Your task to perform on an android device: turn off javascript in the chrome app Image 0: 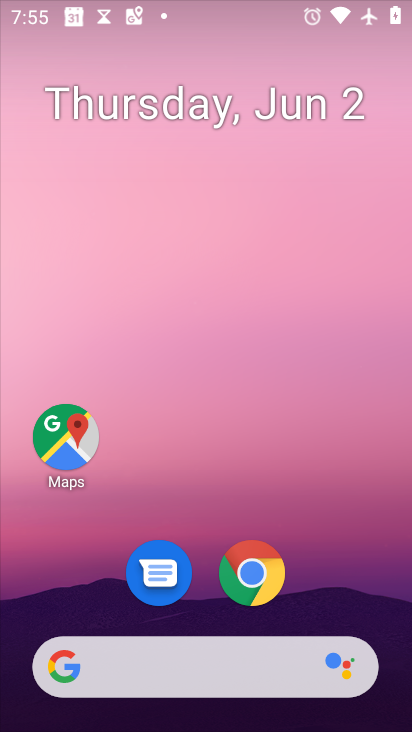
Step 0: press home button
Your task to perform on an android device: turn off javascript in the chrome app Image 1: 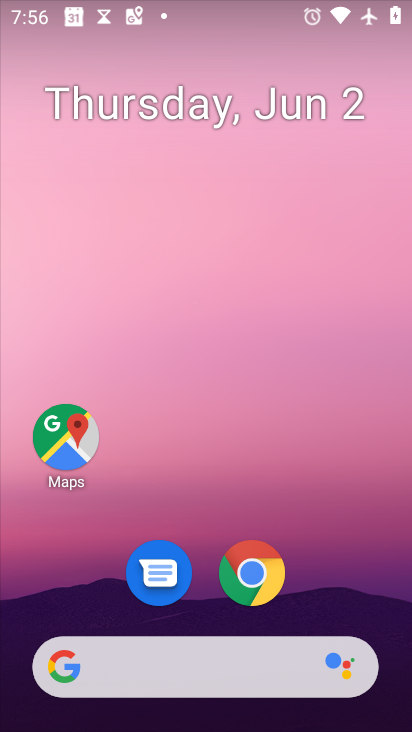
Step 1: click (256, 580)
Your task to perform on an android device: turn off javascript in the chrome app Image 2: 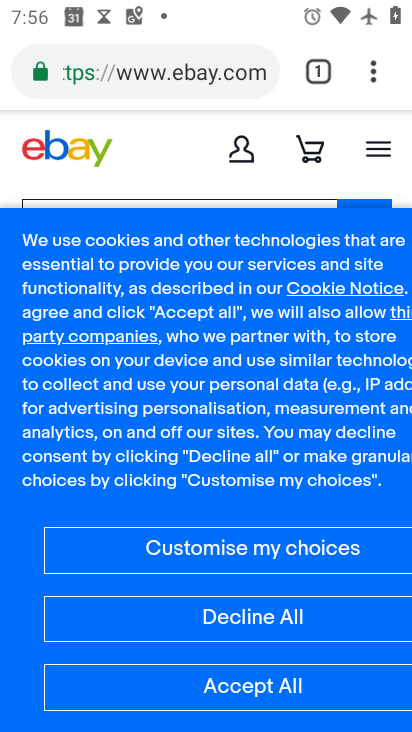
Step 2: drag from (373, 77) to (178, 582)
Your task to perform on an android device: turn off javascript in the chrome app Image 3: 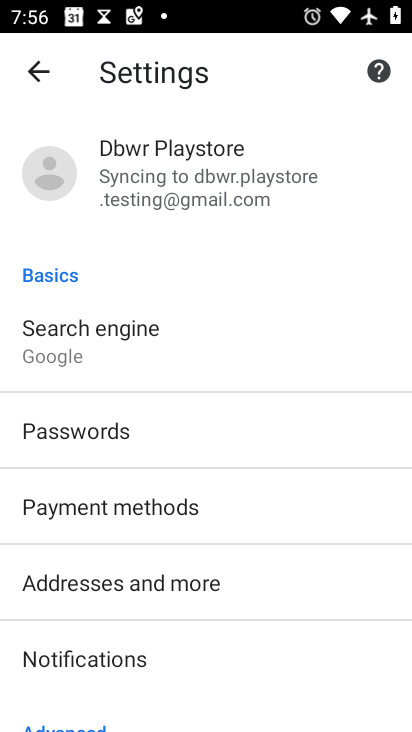
Step 3: drag from (162, 655) to (306, 181)
Your task to perform on an android device: turn off javascript in the chrome app Image 4: 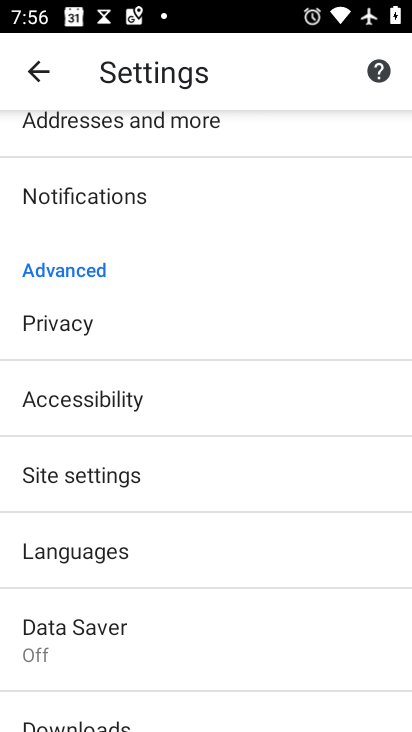
Step 4: click (118, 462)
Your task to perform on an android device: turn off javascript in the chrome app Image 5: 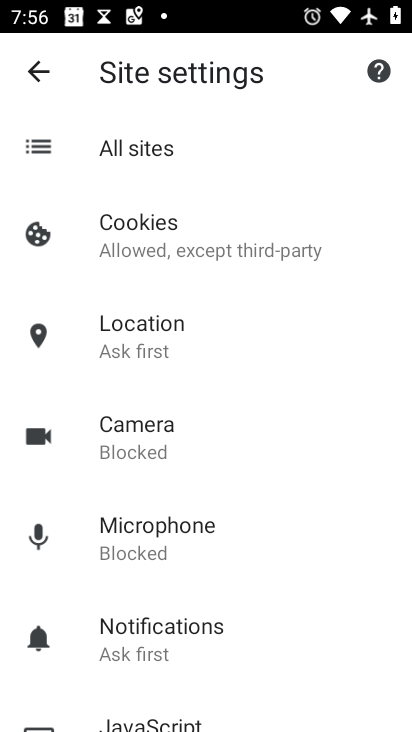
Step 5: drag from (266, 579) to (335, 171)
Your task to perform on an android device: turn off javascript in the chrome app Image 6: 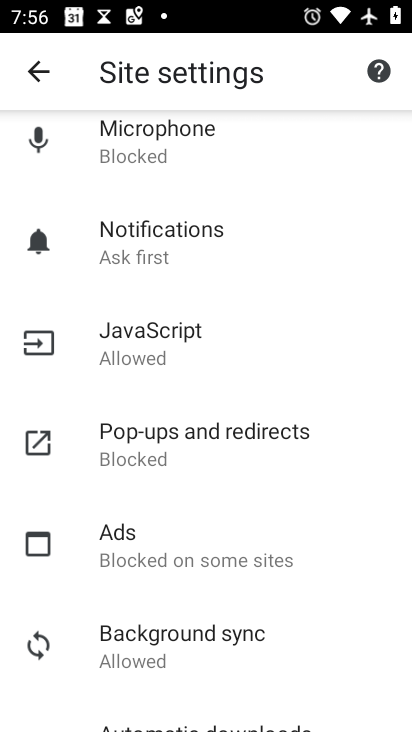
Step 6: click (142, 354)
Your task to perform on an android device: turn off javascript in the chrome app Image 7: 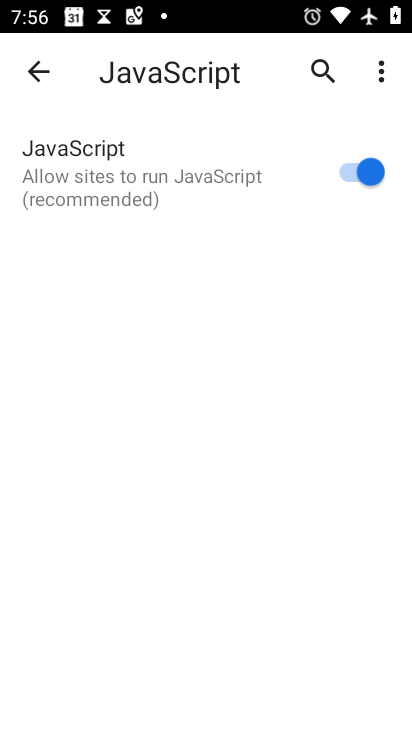
Step 7: click (339, 171)
Your task to perform on an android device: turn off javascript in the chrome app Image 8: 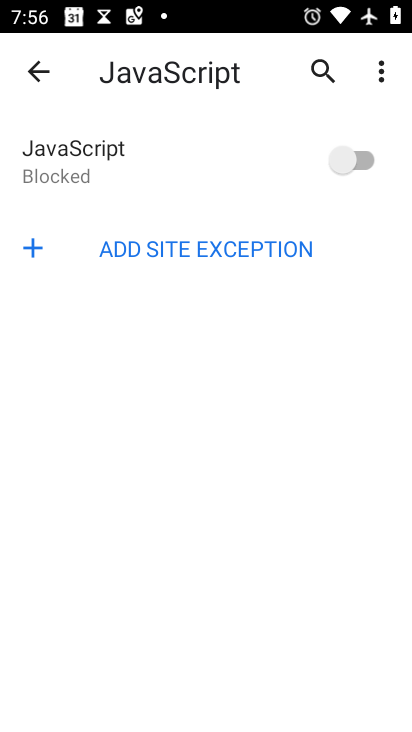
Step 8: task complete